Your task to perform on an android device: Check the settings for the Spotify app Image 0: 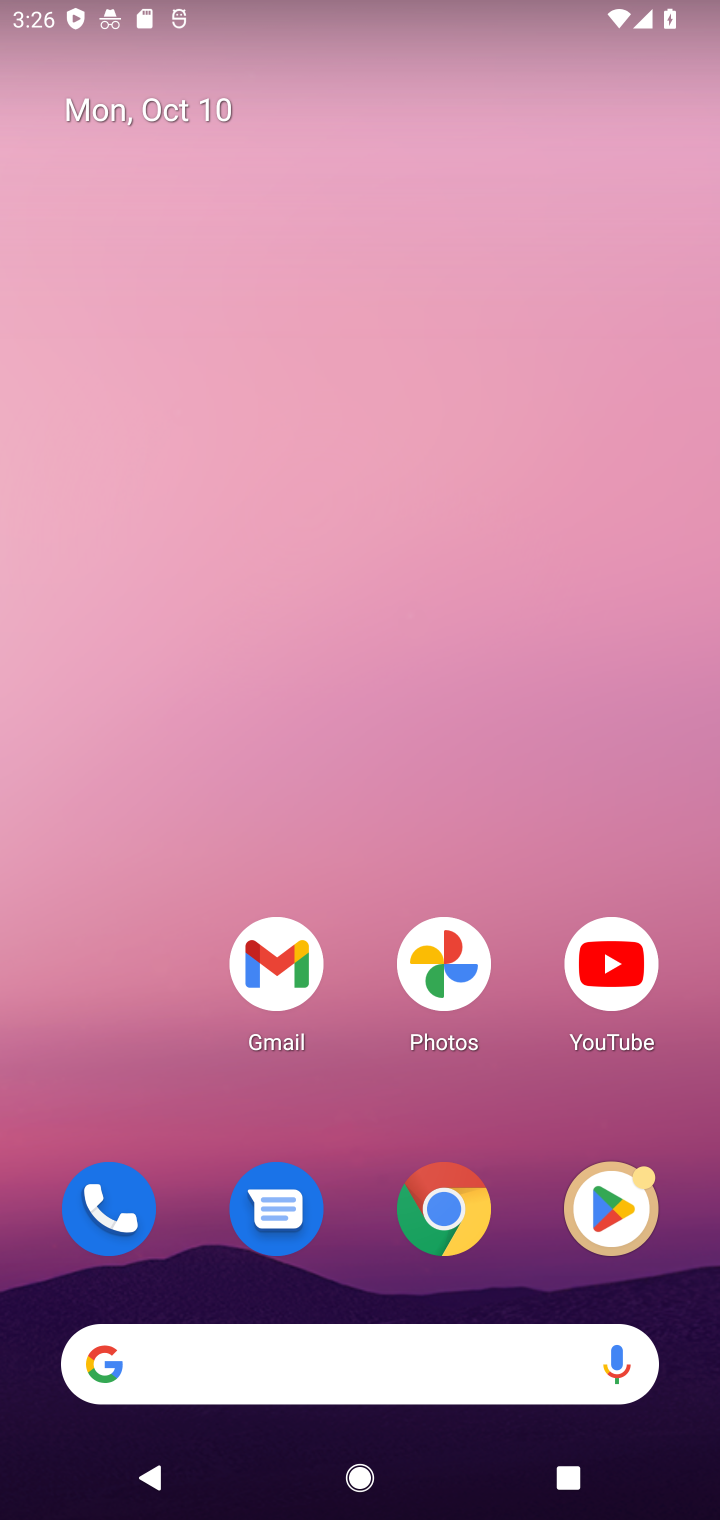
Step 0: click (427, 1231)
Your task to perform on an android device: Check the settings for the Spotify app Image 1: 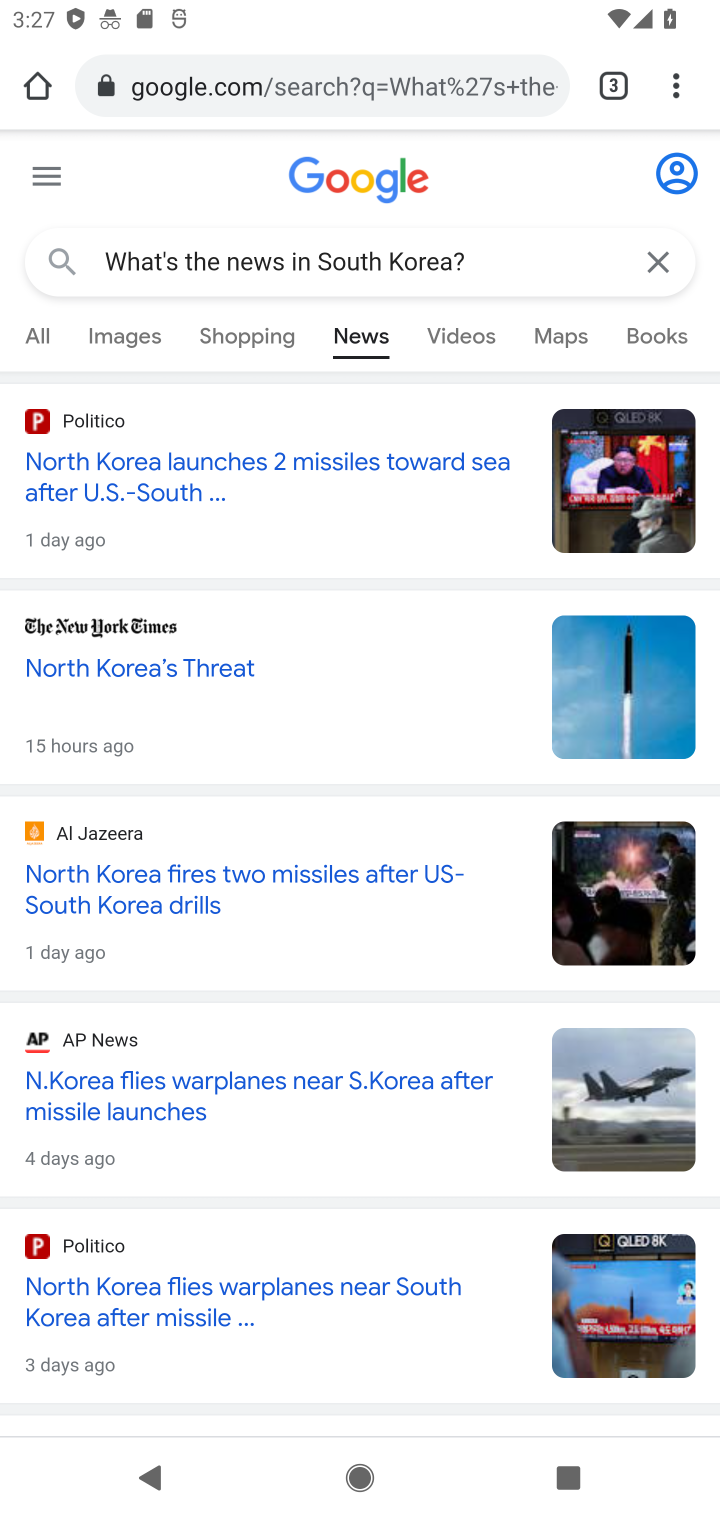
Step 1: click (427, 1231)
Your task to perform on an android device: Check the settings for the Spotify app Image 2: 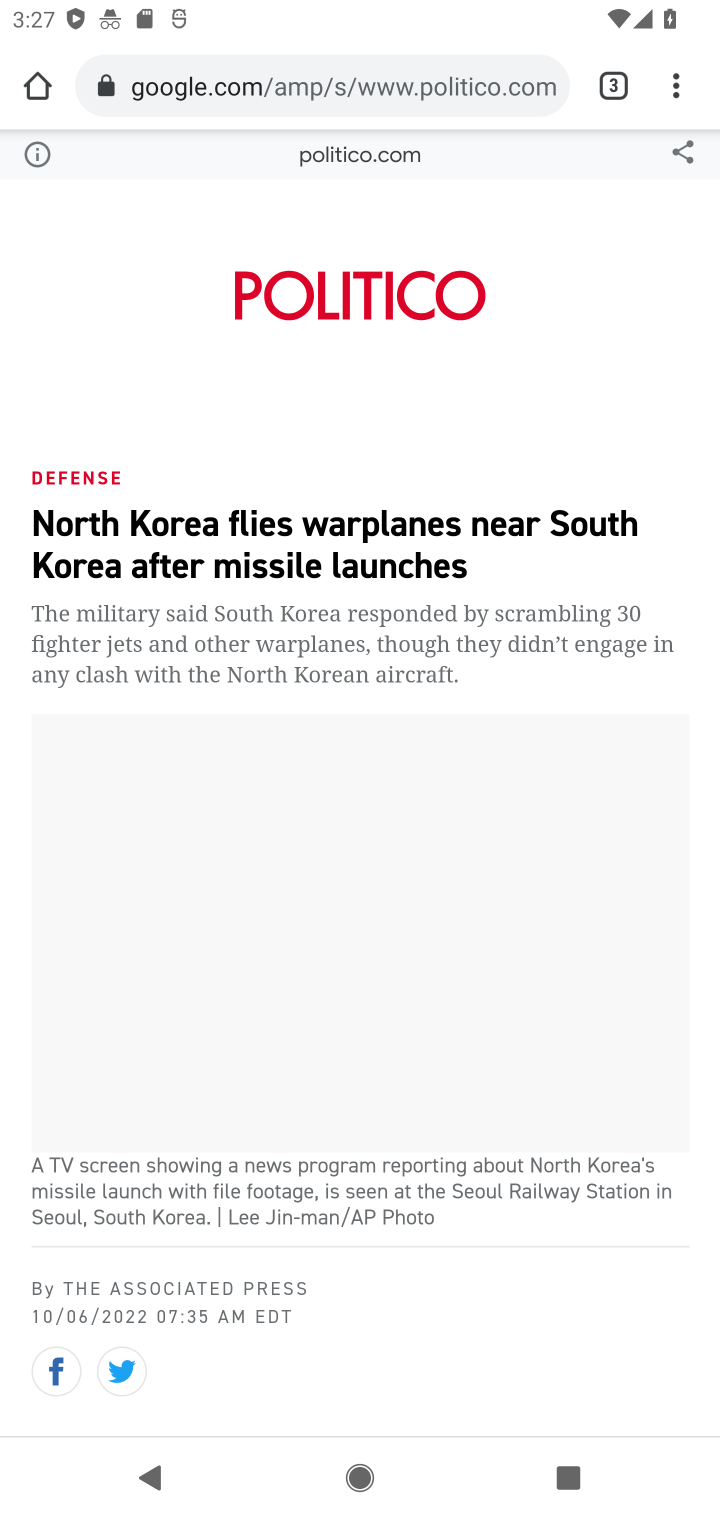
Step 2: click (488, 264)
Your task to perform on an android device: Check the settings for the Spotify app Image 3: 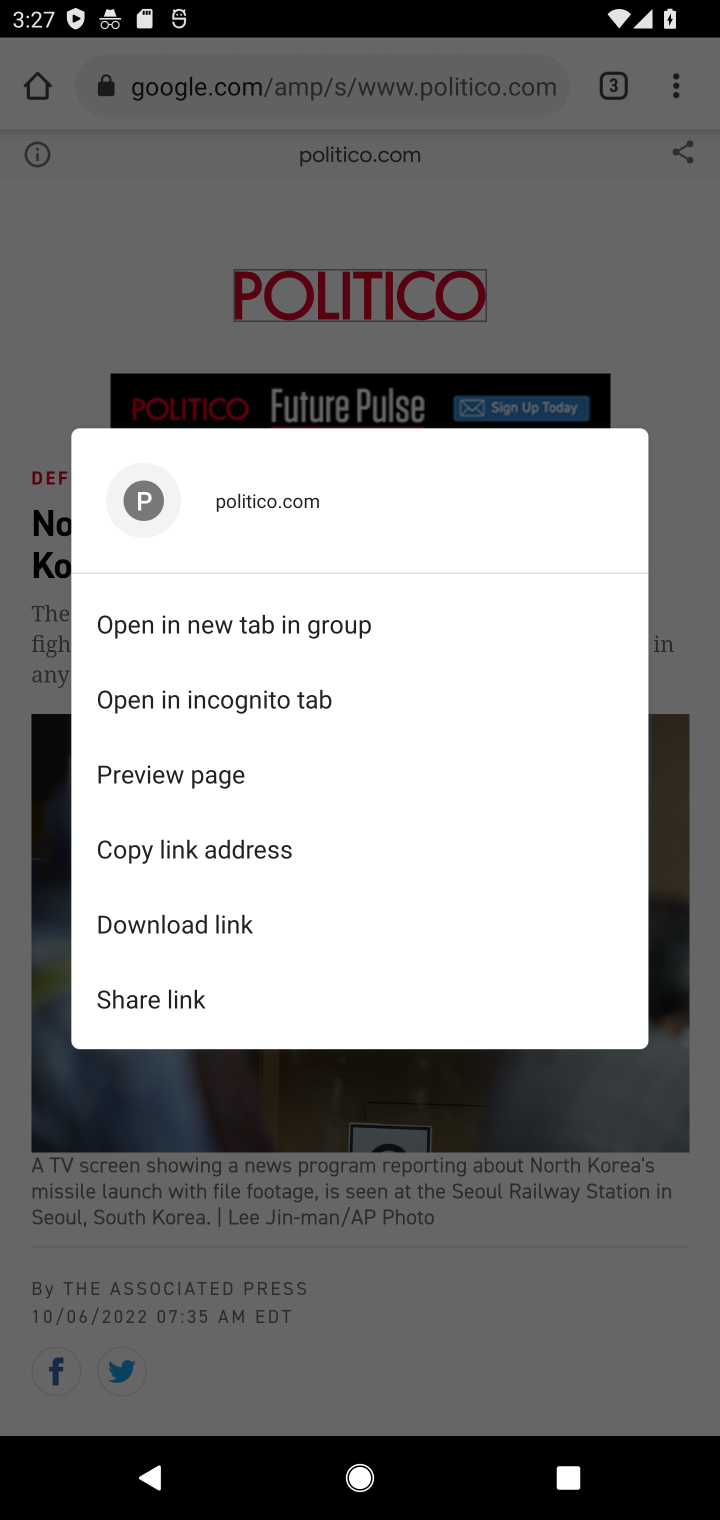
Step 3: click (474, 277)
Your task to perform on an android device: Check the settings for the Spotify app Image 4: 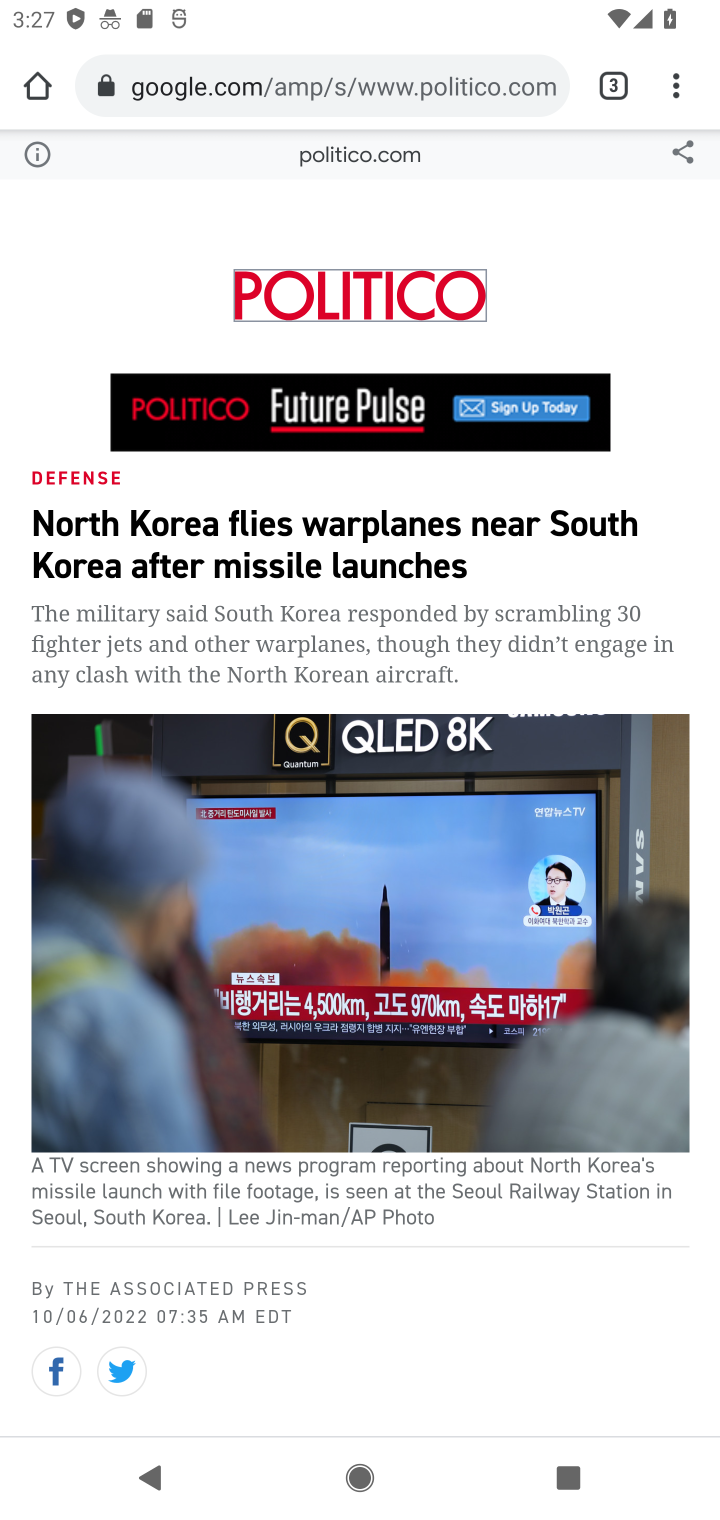
Step 4: task complete